Your task to perform on an android device: Open settings on Google Maps Image 0: 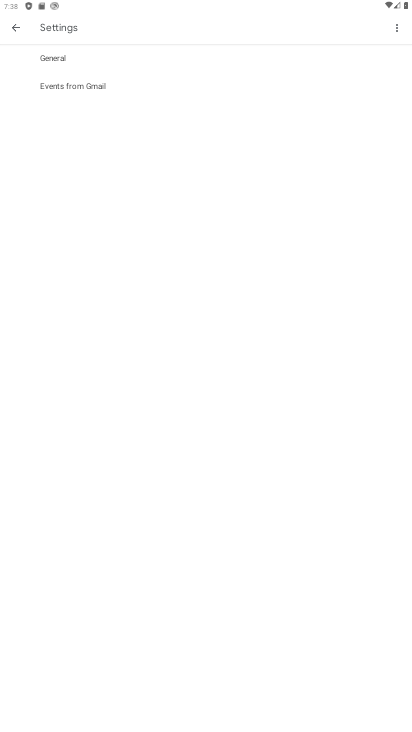
Step 0: press home button
Your task to perform on an android device: Open settings on Google Maps Image 1: 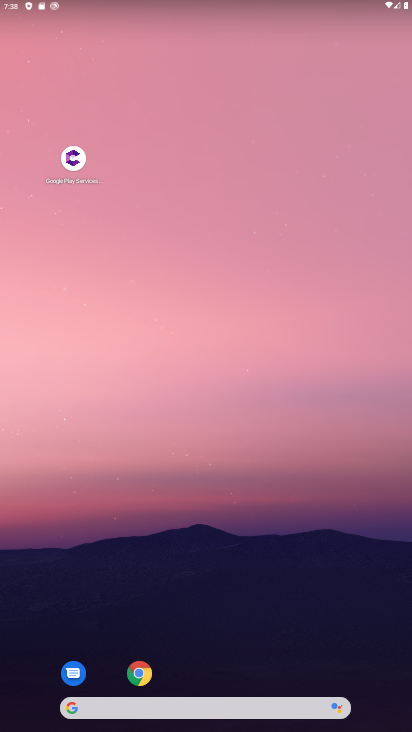
Step 1: drag from (25, 655) to (142, 195)
Your task to perform on an android device: Open settings on Google Maps Image 2: 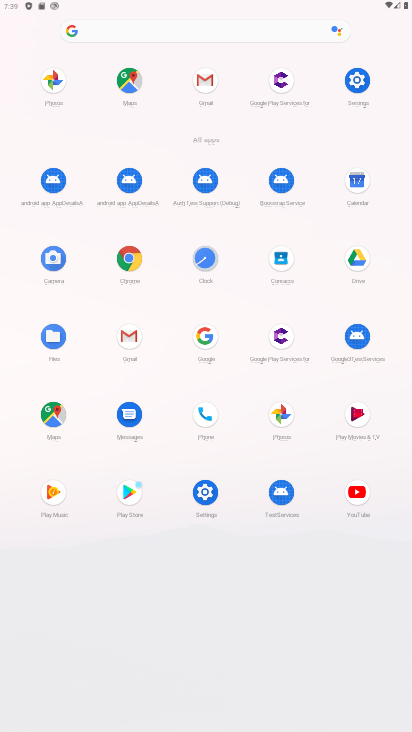
Step 2: click (41, 419)
Your task to perform on an android device: Open settings on Google Maps Image 3: 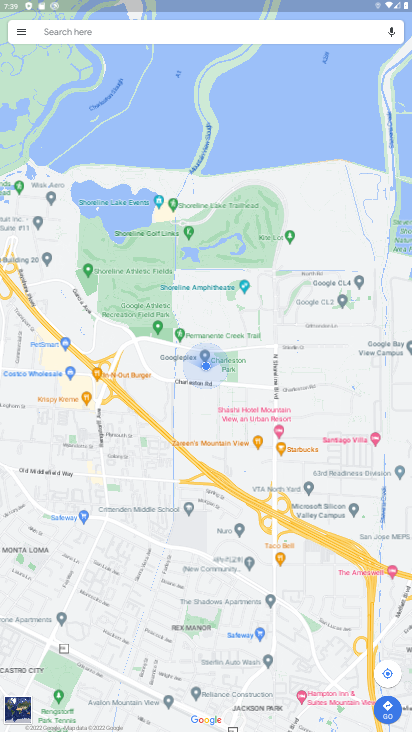
Step 3: click (20, 25)
Your task to perform on an android device: Open settings on Google Maps Image 4: 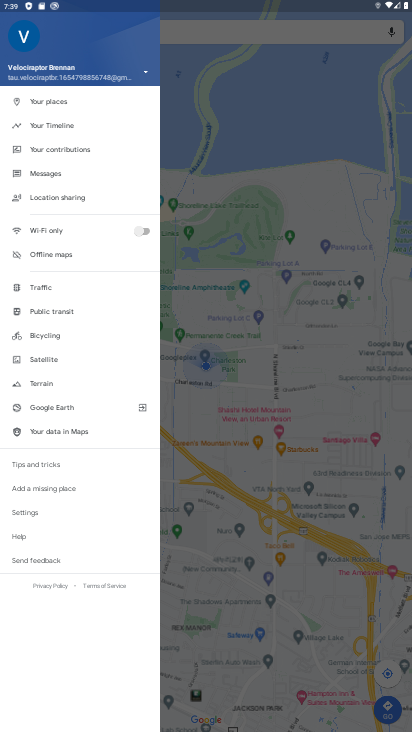
Step 4: click (21, 505)
Your task to perform on an android device: Open settings on Google Maps Image 5: 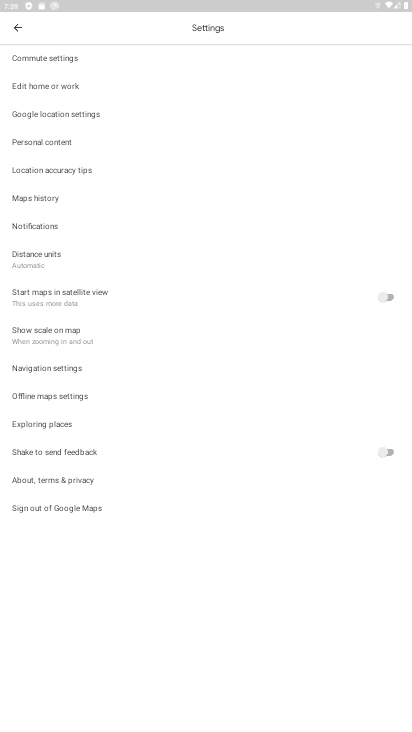
Step 5: task complete